Your task to perform on an android device: Open the Play Movies app and select the watchlist tab. Image 0: 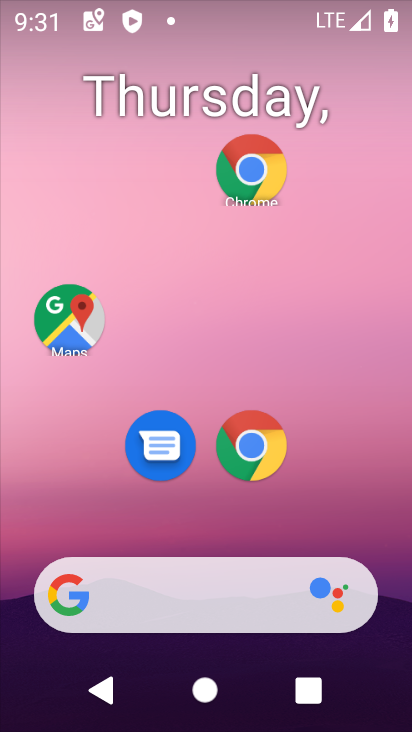
Step 0: drag from (208, 554) to (139, 95)
Your task to perform on an android device: Open the Play Movies app and select the watchlist tab. Image 1: 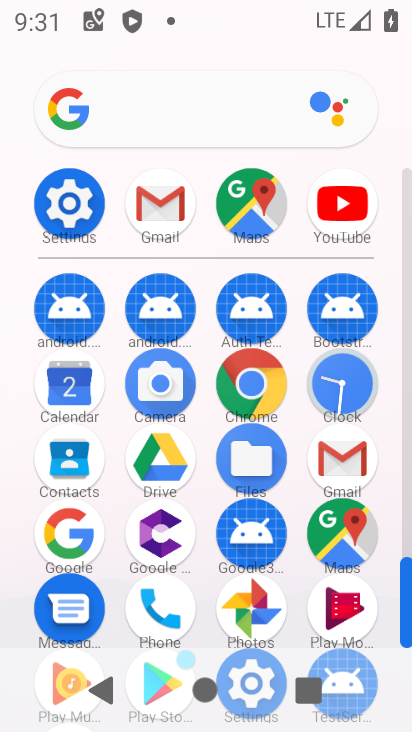
Step 1: click (341, 570)
Your task to perform on an android device: Open the Play Movies app and select the watchlist tab. Image 2: 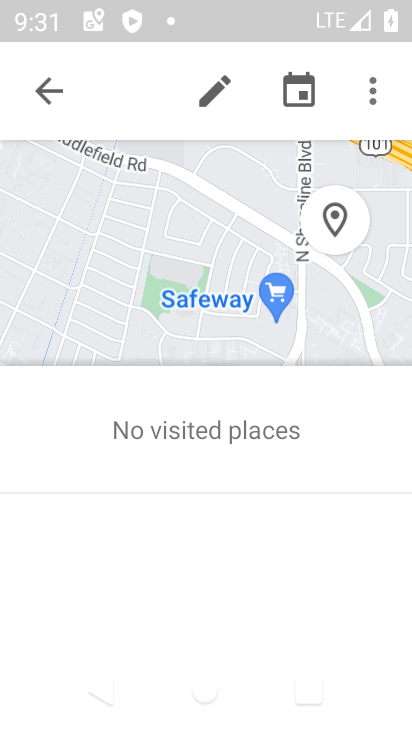
Step 2: click (39, 95)
Your task to perform on an android device: Open the Play Movies app and select the watchlist tab. Image 3: 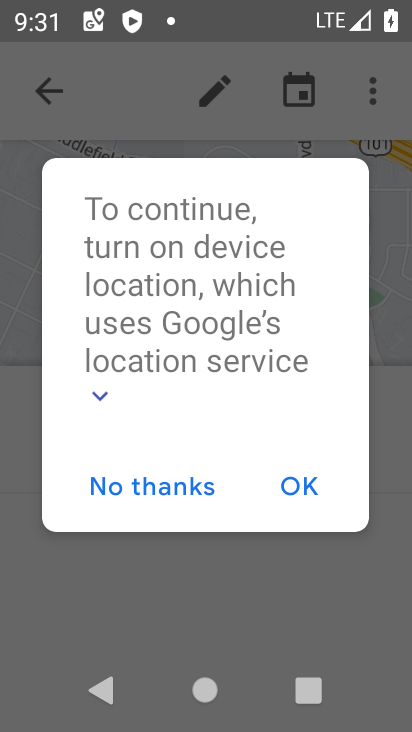
Step 3: click (296, 484)
Your task to perform on an android device: Open the Play Movies app and select the watchlist tab. Image 4: 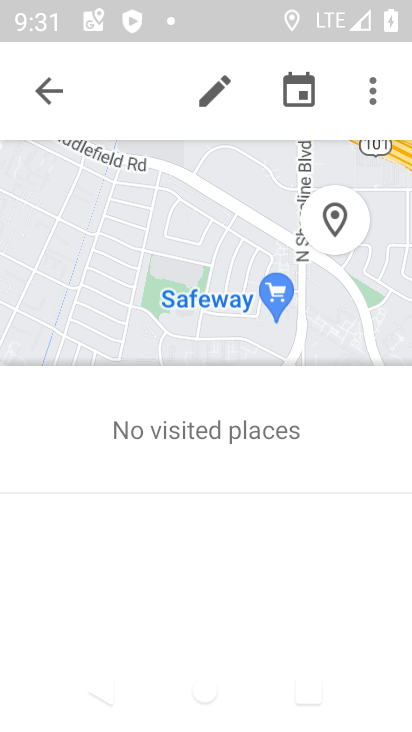
Step 4: click (55, 95)
Your task to perform on an android device: Open the Play Movies app and select the watchlist tab. Image 5: 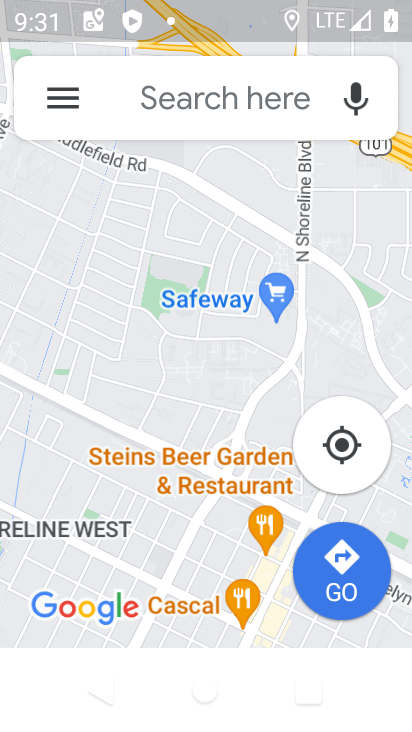
Step 5: press back button
Your task to perform on an android device: Open the Play Movies app and select the watchlist tab. Image 6: 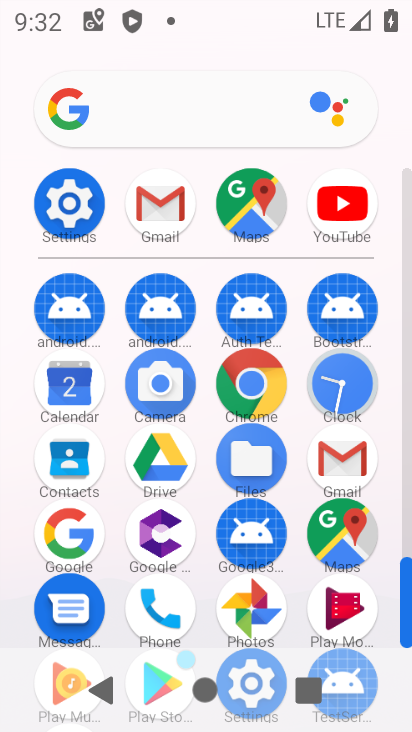
Step 6: click (353, 627)
Your task to perform on an android device: Open the Play Movies app and select the watchlist tab. Image 7: 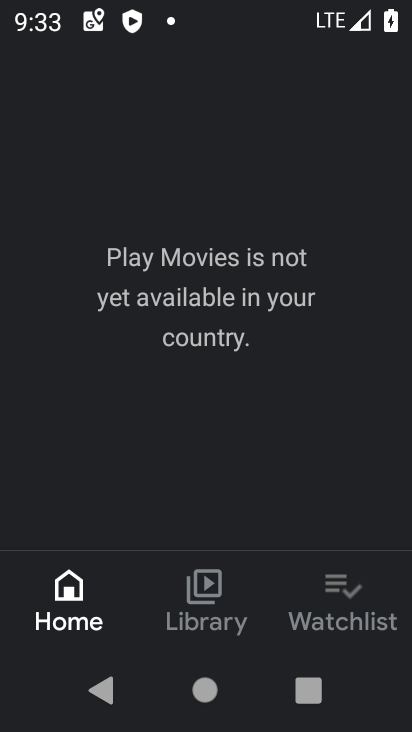
Step 7: click (330, 623)
Your task to perform on an android device: Open the Play Movies app and select the watchlist tab. Image 8: 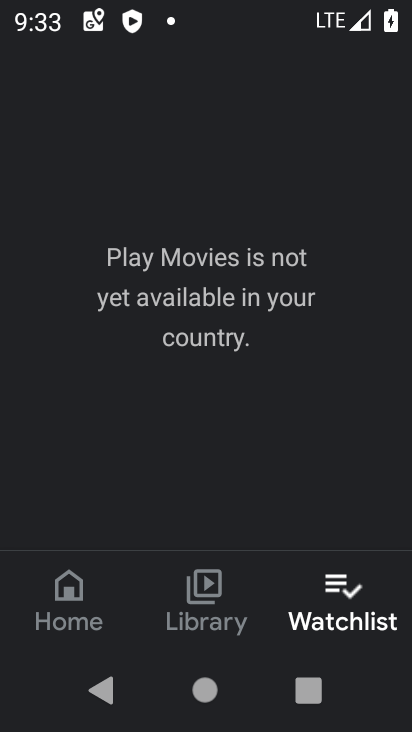
Step 8: task complete